Your task to perform on an android device: Open ESPN.com Image 0: 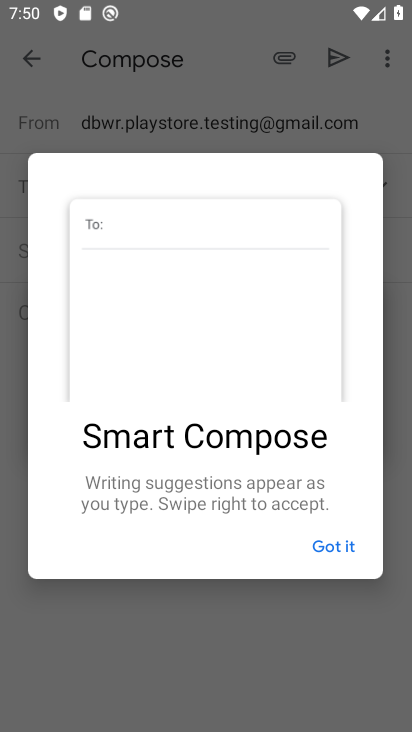
Step 0: press home button
Your task to perform on an android device: Open ESPN.com Image 1: 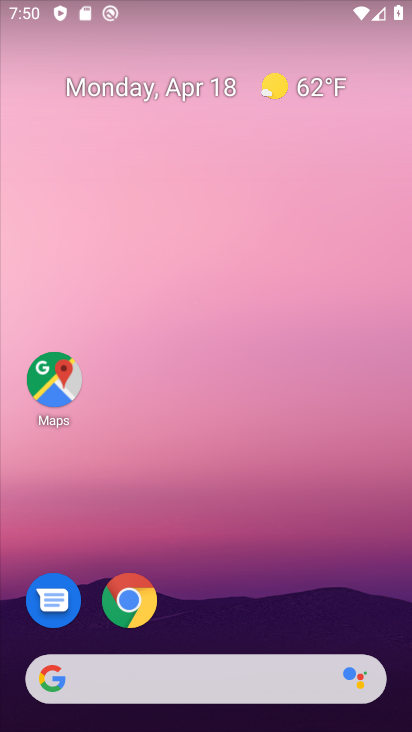
Step 1: click (154, 668)
Your task to perform on an android device: Open ESPN.com Image 2: 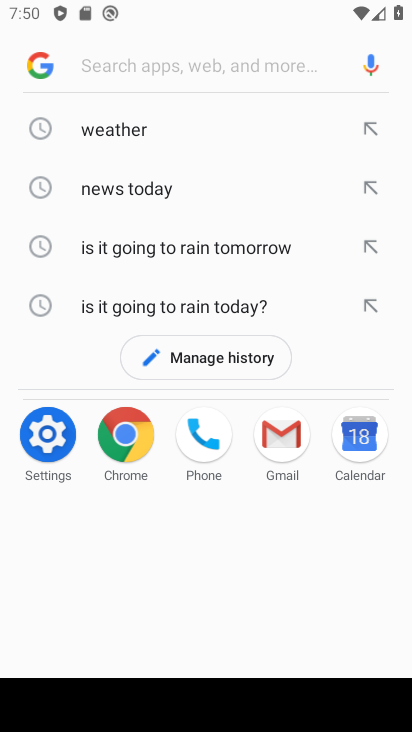
Step 2: type "espn.com"
Your task to perform on an android device: Open ESPN.com Image 3: 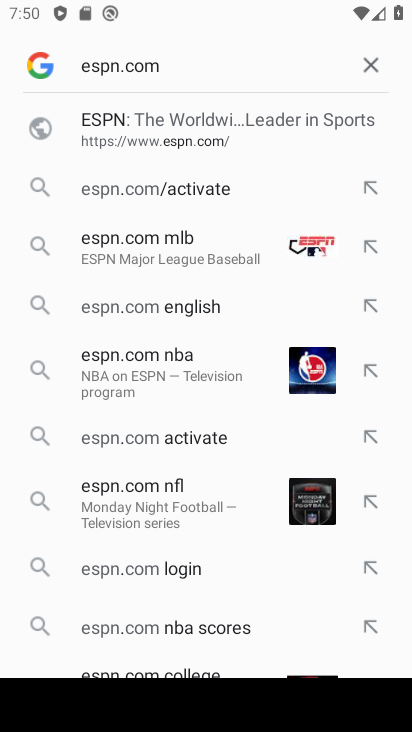
Step 3: click (176, 140)
Your task to perform on an android device: Open ESPN.com Image 4: 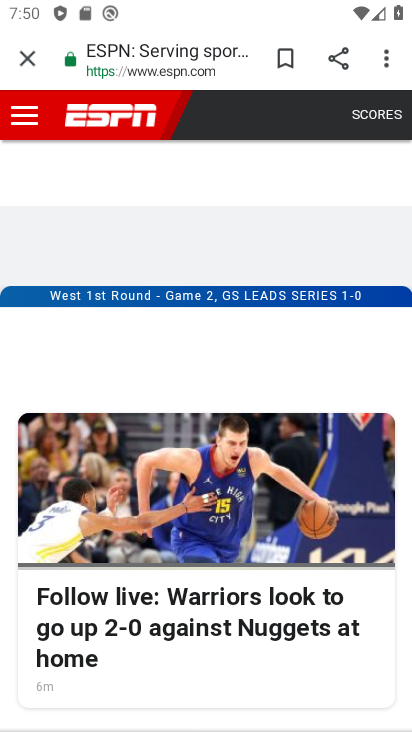
Step 4: task complete